Your task to perform on an android device: Search for vegetarian restaurants on Maps Image 0: 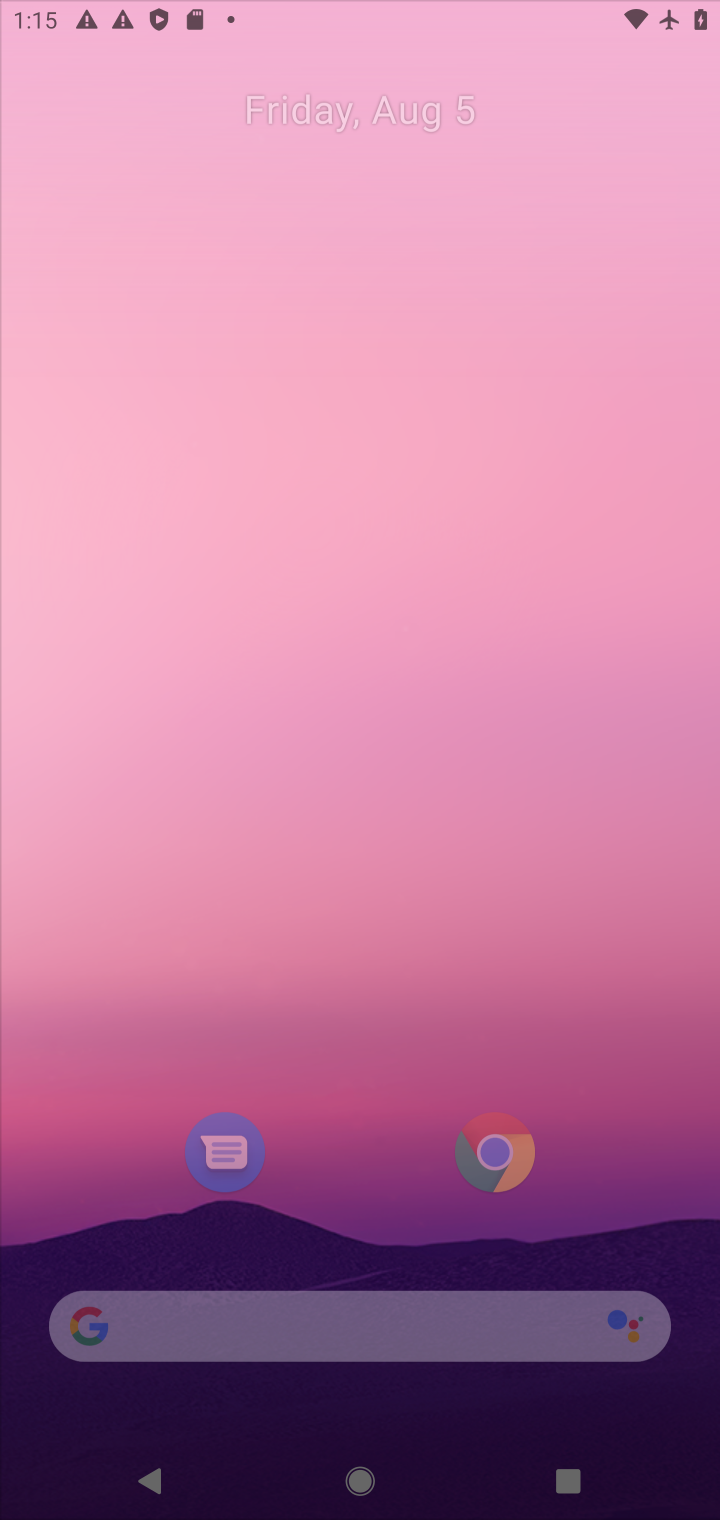
Step 0: press home button
Your task to perform on an android device: Search for vegetarian restaurants on Maps Image 1: 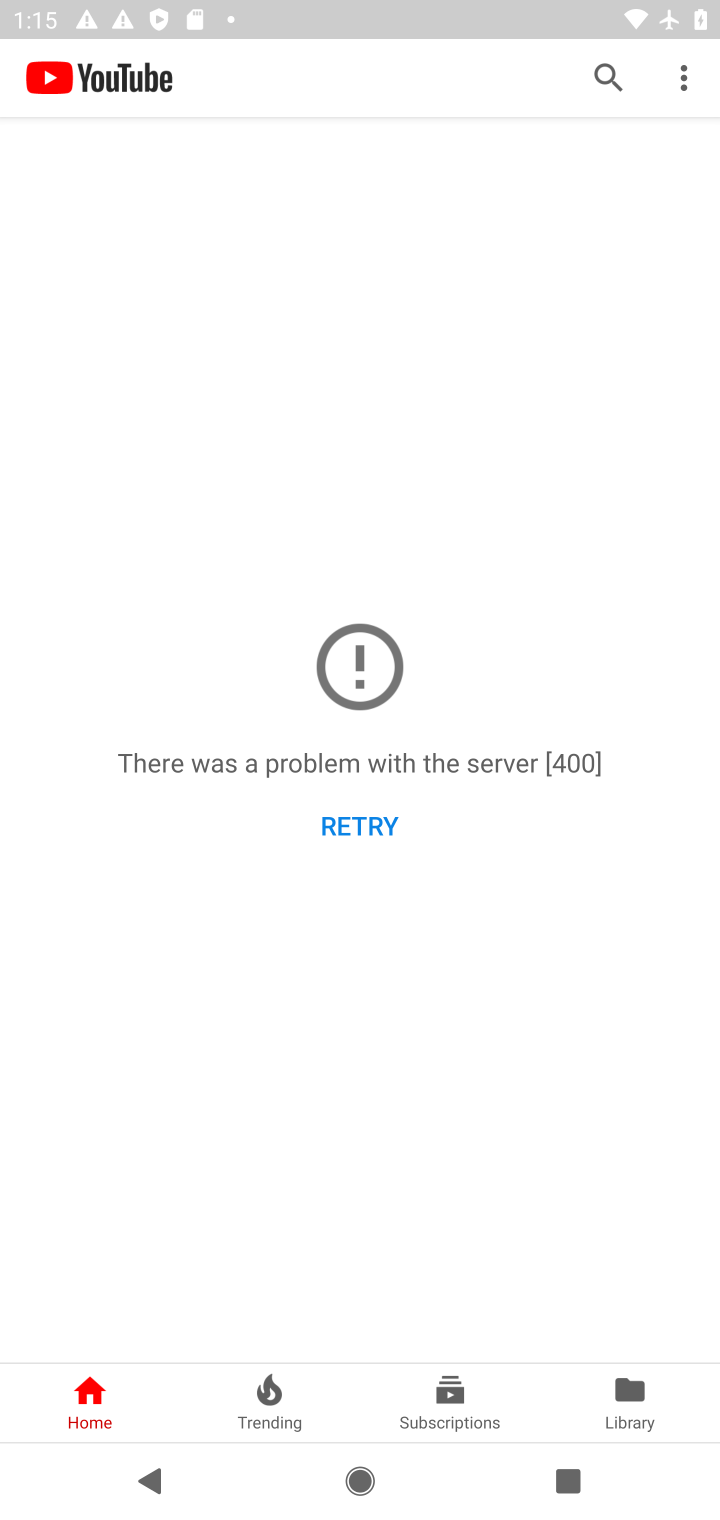
Step 1: drag from (493, 379) to (272, 18)
Your task to perform on an android device: Search for vegetarian restaurants on Maps Image 2: 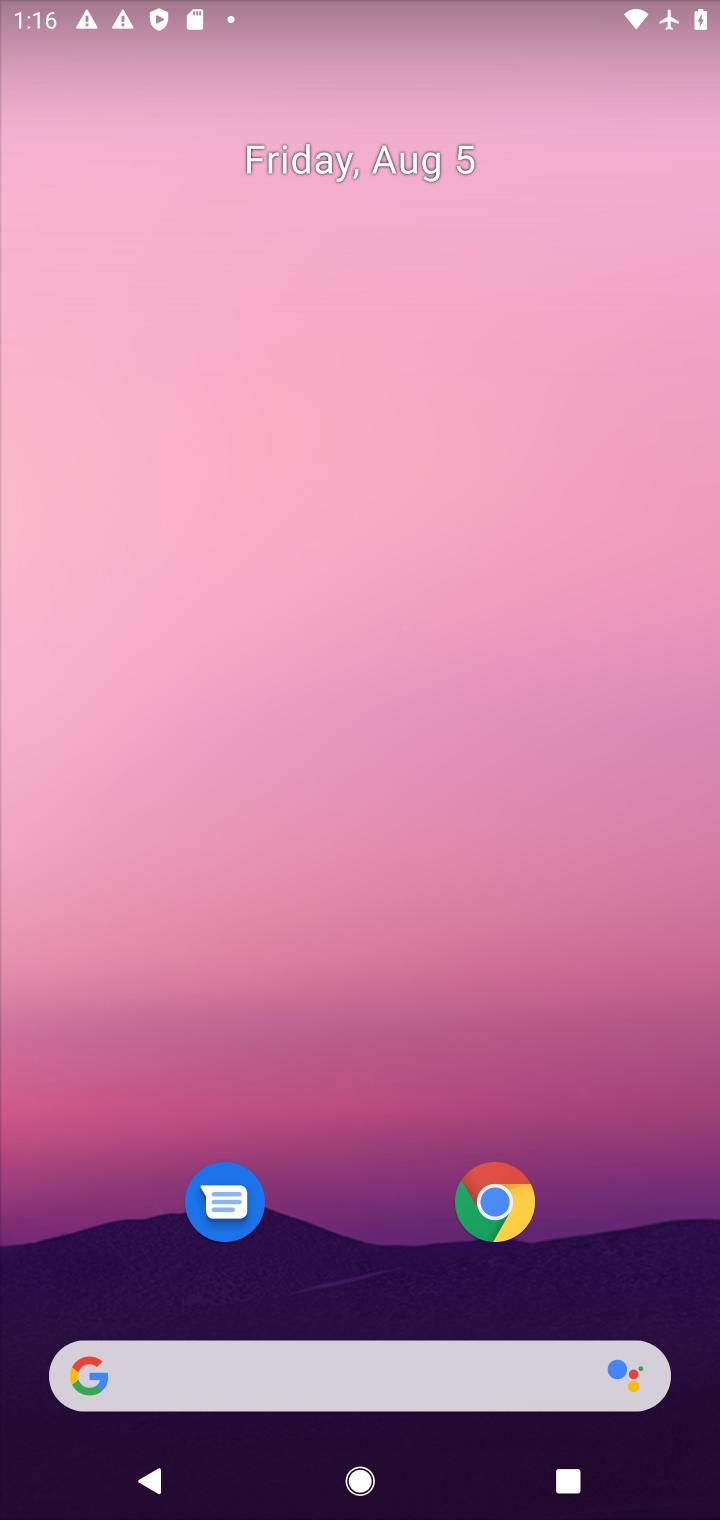
Step 2: drag from (387, 1003) to (397, 299)
Your task to perform on an android device: Search for vegetarian restaurants on Maps Image 3: 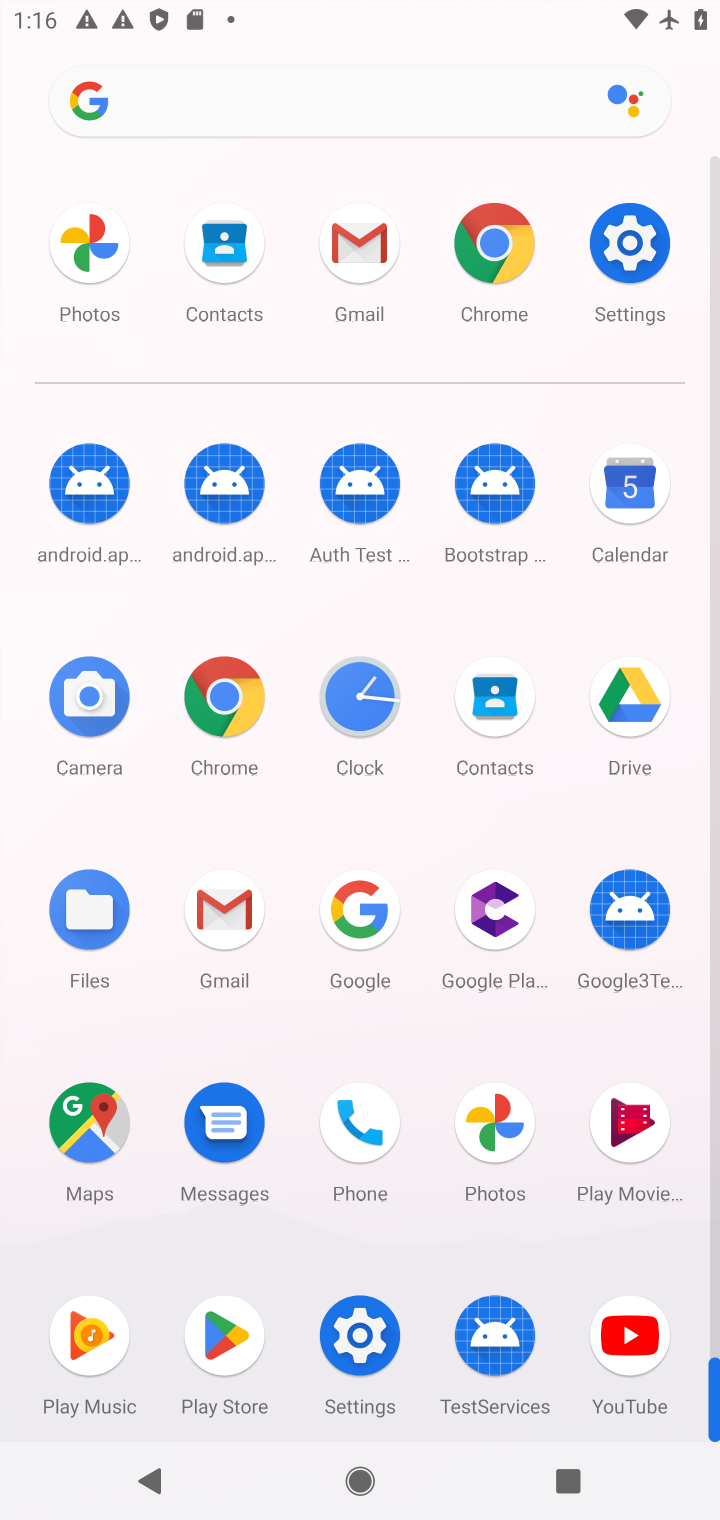
Step 3: click (75, 1126)
Your task to perform on an android device: Search for vegetarian restaurants on Maps Image 4: 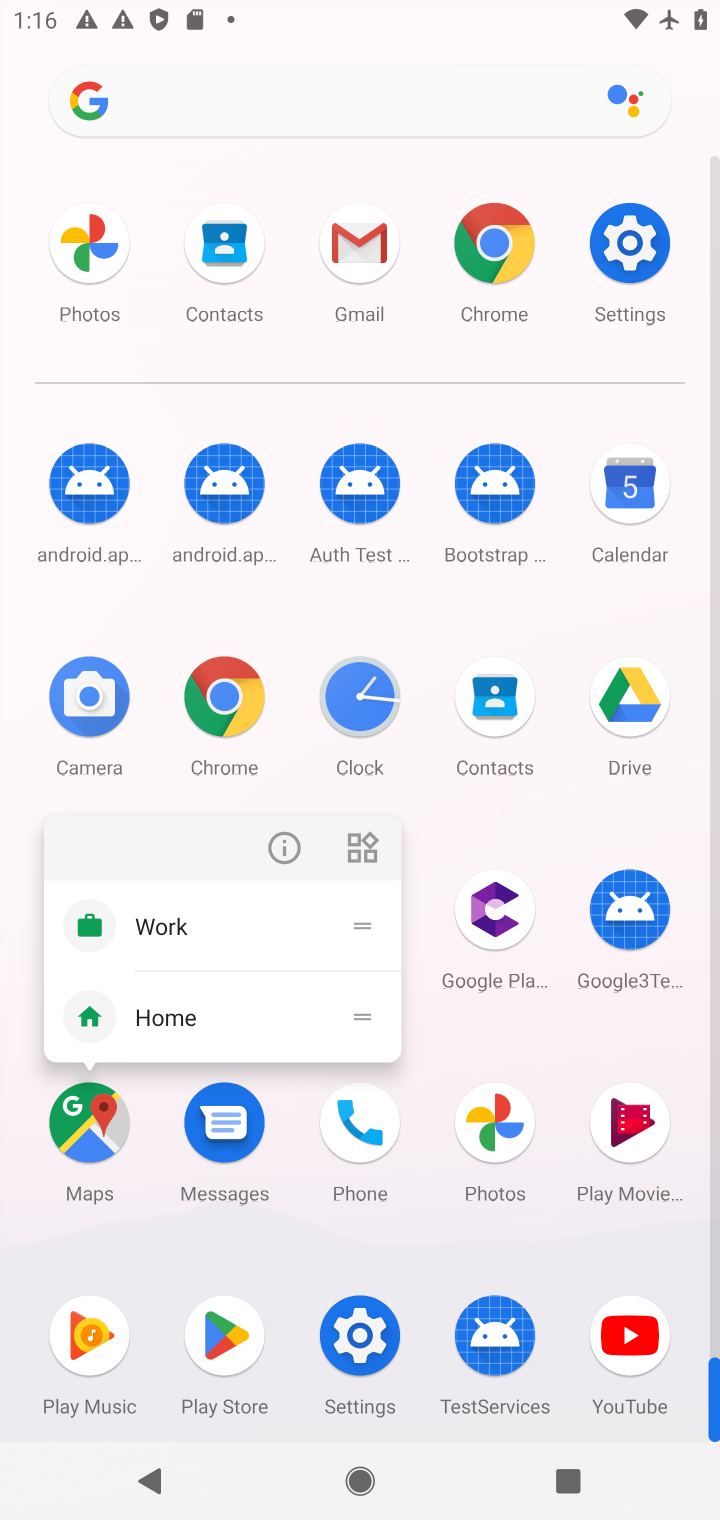
Step 4: click (82, 1127)
Your task to perform on an android device: Search for vegetarian restaurants on Maps Image 5: 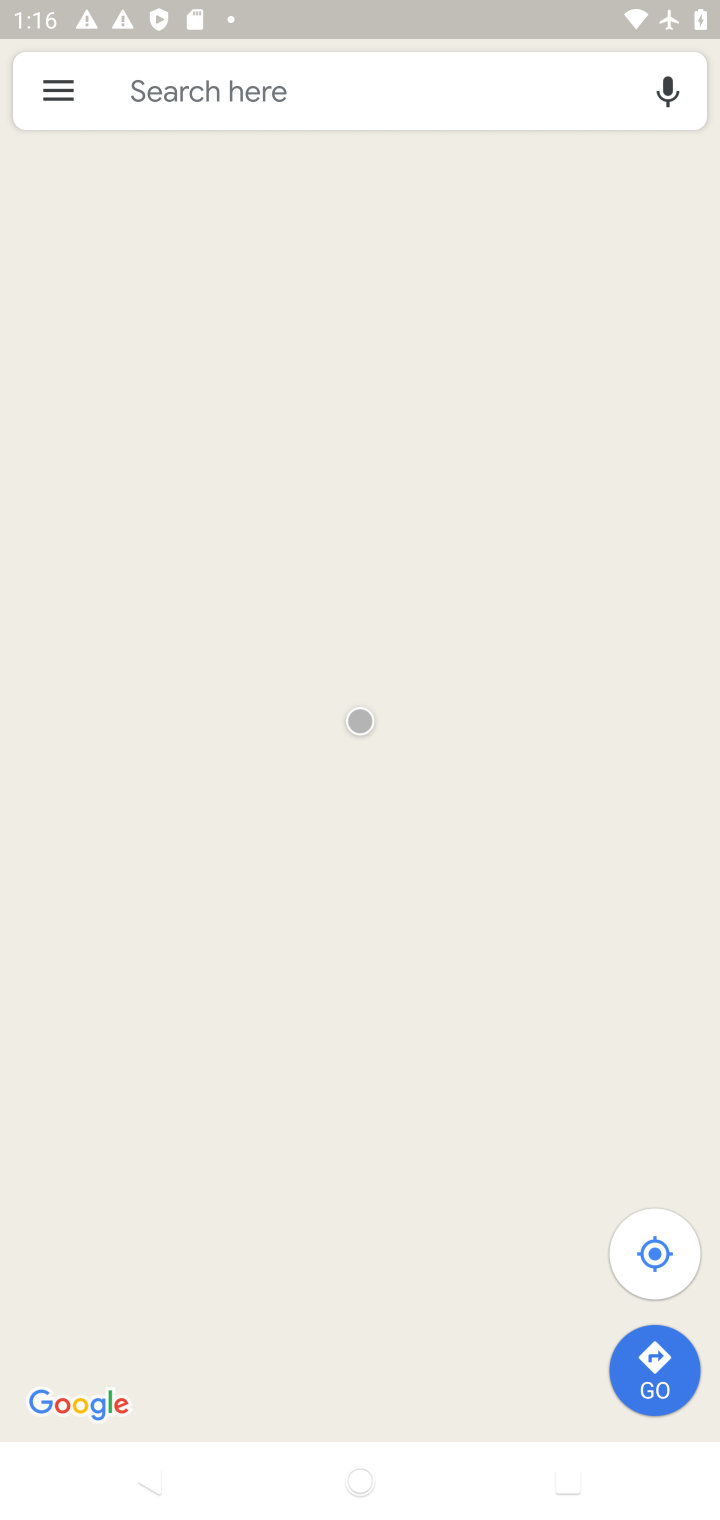
Step 5: click (270, 85)
Your task to perform on an android device: Search for vegetarian restaurants on Maps Image 6: 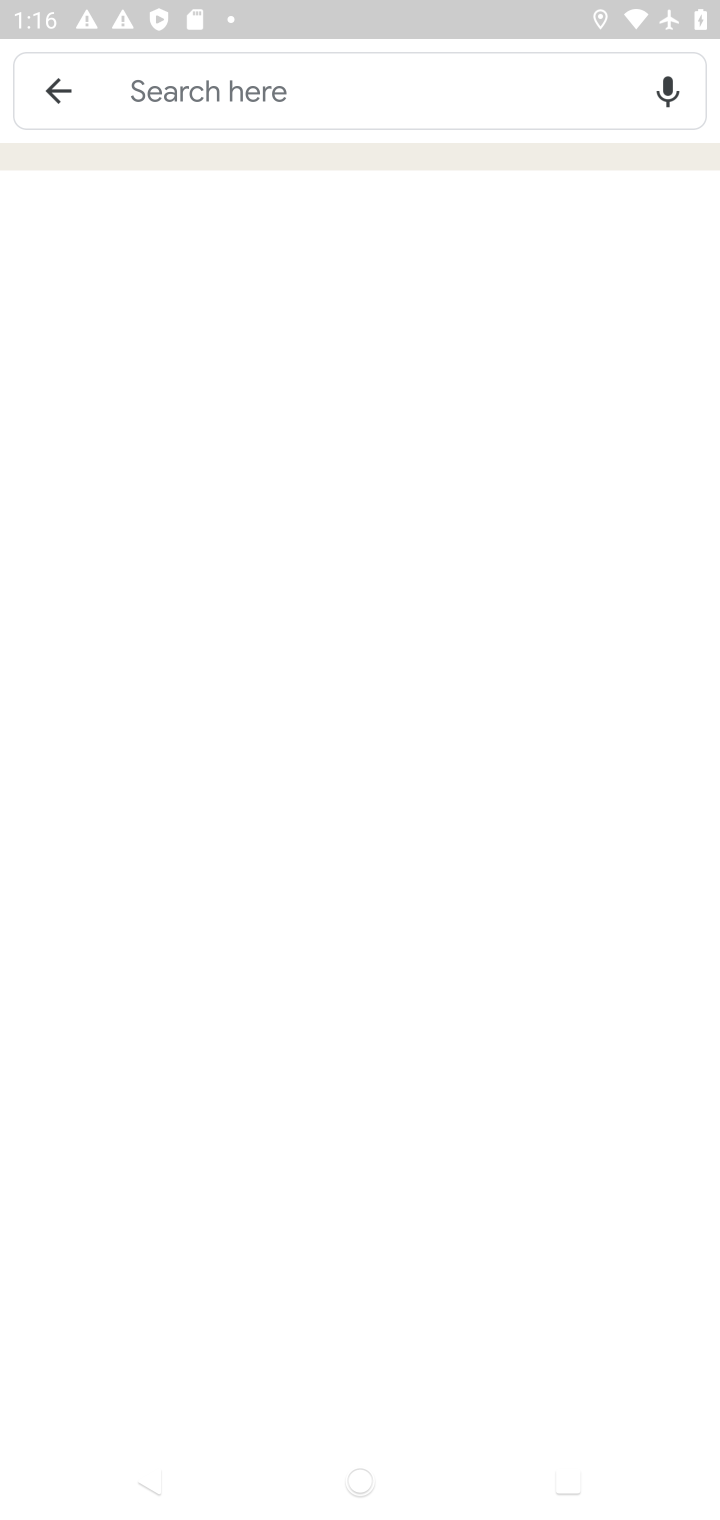
Step 6: click (503, 100)
Your task to perform on an android device: Search for vegetarian restaurants on Maps Image 7: 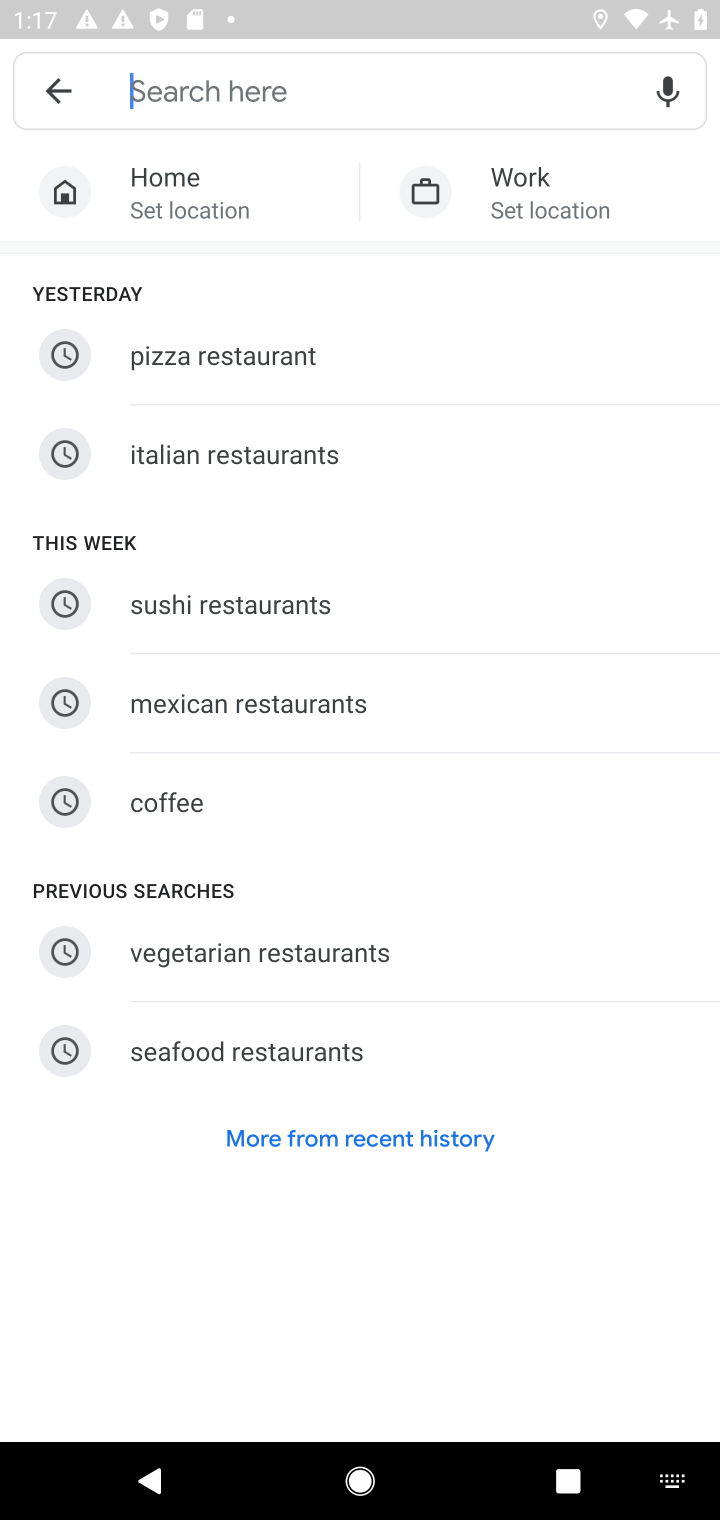
Step 7: type "vegetarian restaurants"
Your task to perform on an android device: Search for vegetarian restaurants on Maps Image 8: 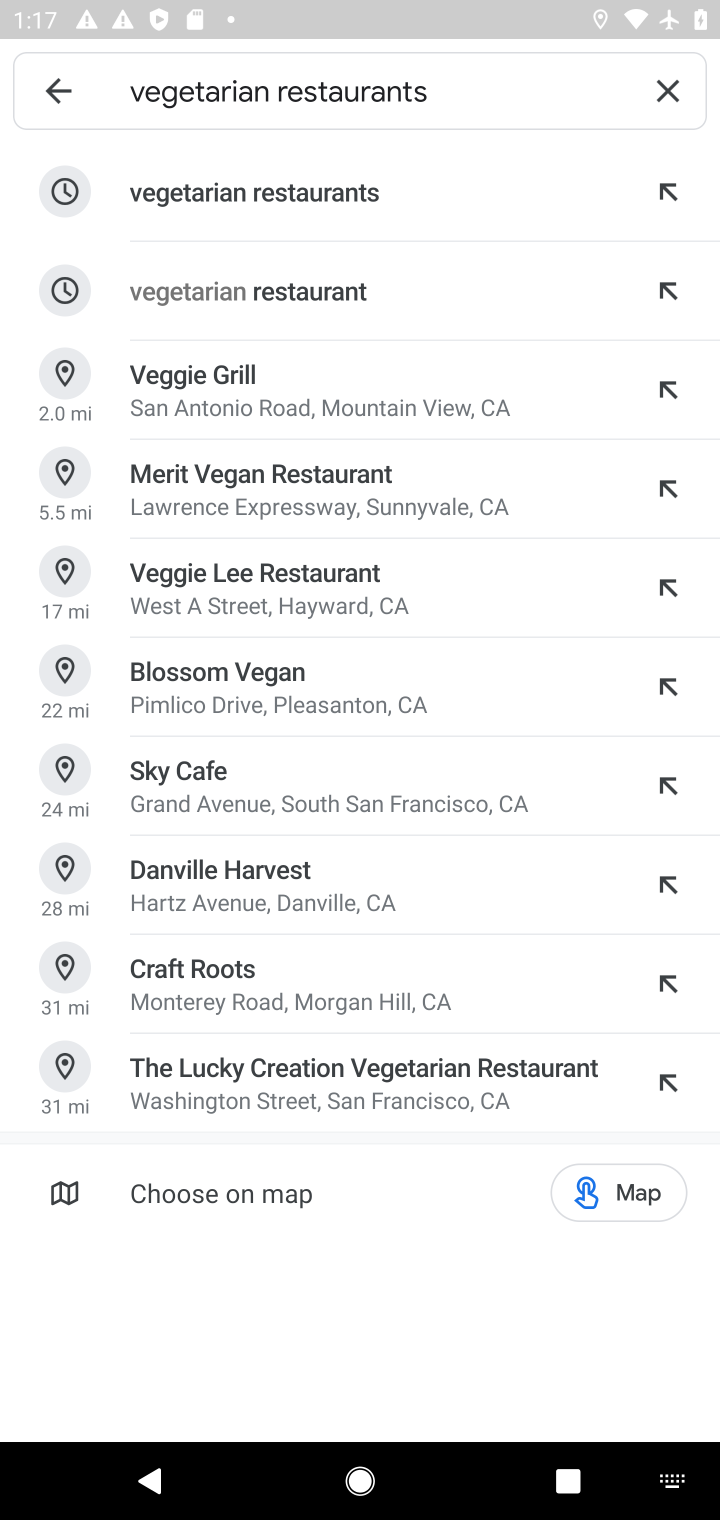
Step 8: click (328, 184)
Your task to perform on an android device: Search for vegetarian restaurants on Maps Image 9: 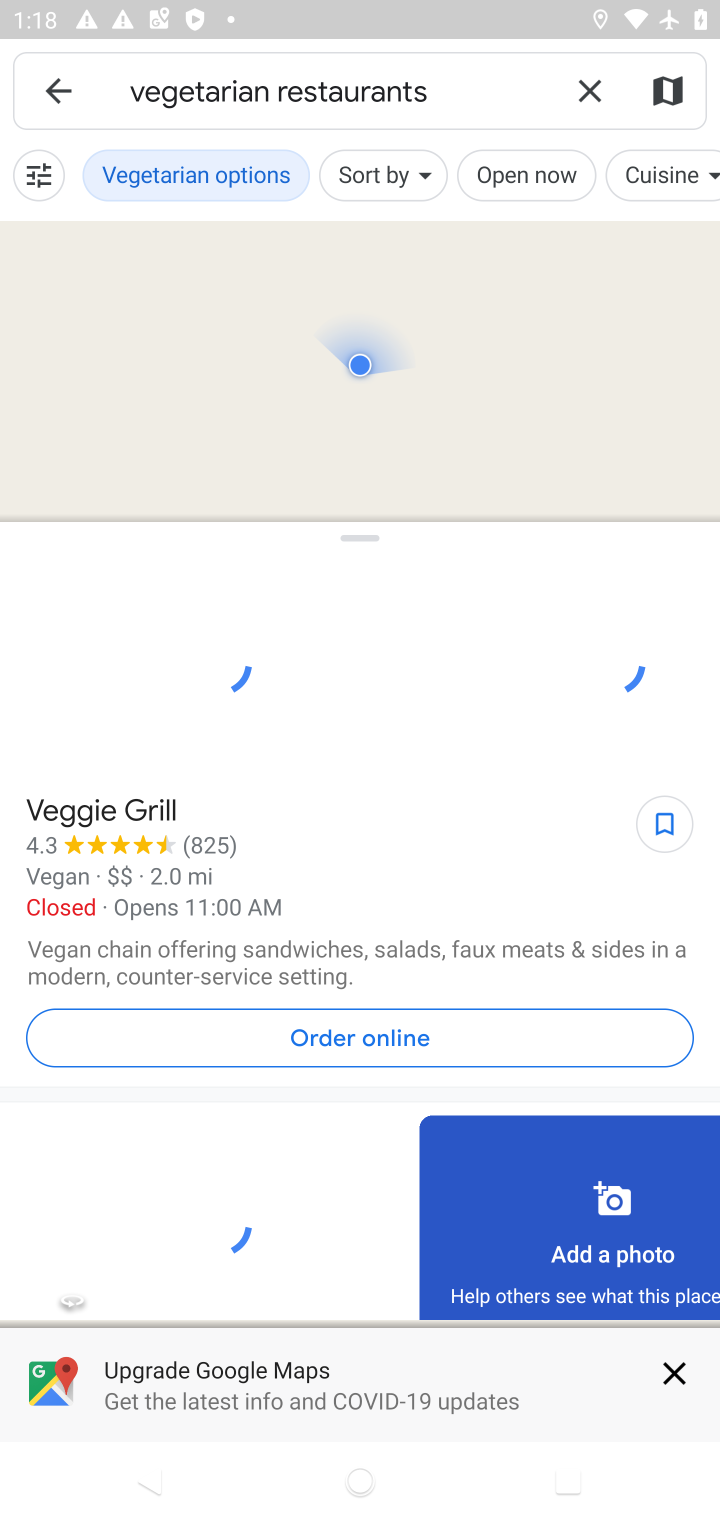
Step 9: task complete